Your task to perform on an android device: Set the phone to "Do not disturb". Image 0: 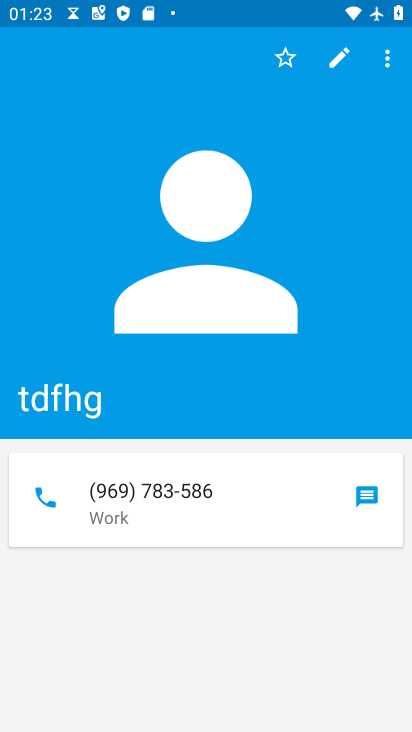
Step 0: press home button
Your task to perform on an android device: Set the phone to "Do not disturb". Image 1: 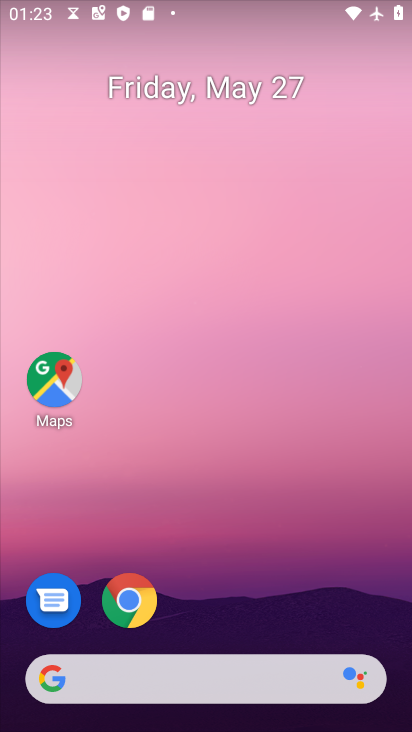
Step 1: drag from (218, 434) to (144, 21)
Your task to perform on an android device: Set the phone to "Do not disturb". Image 2: 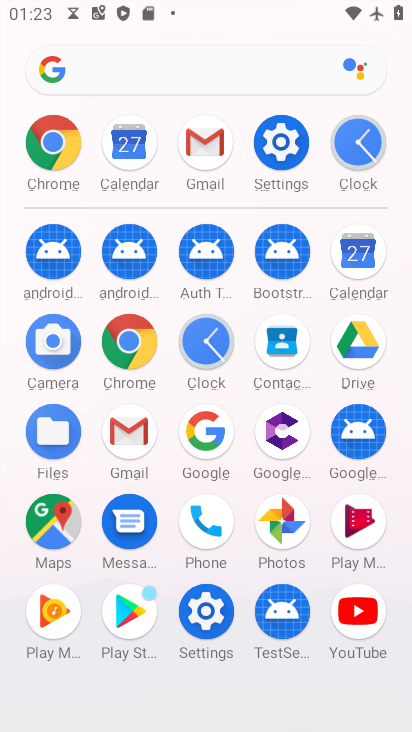
Step 2: click (287, 136)
Your task to perform on an android device: Set the phone to "Do not disturb". Image 3: 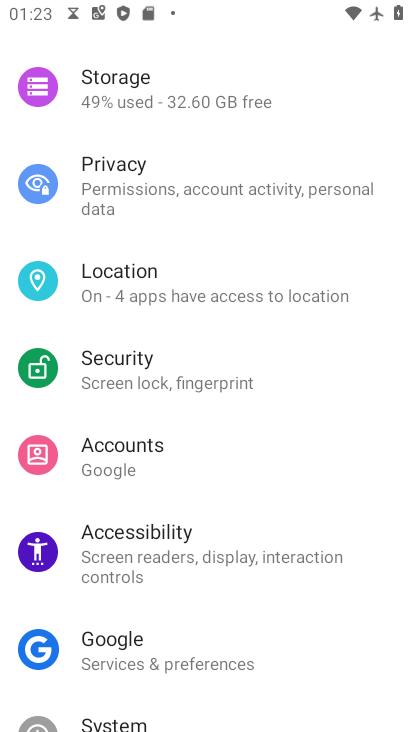
Step 3: drag from (191, 553) to (173, 338)
Your task to perform on an android device: Set the phone to "Do not disturb". Image 4: 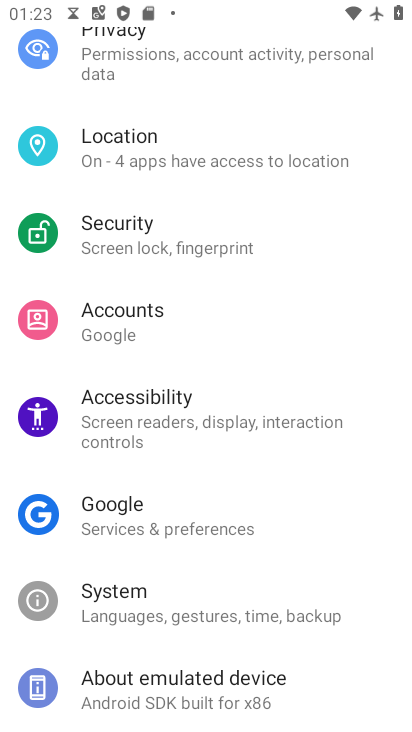
Step 4: drag from (208, 531) to (195, 258)
Your task to perform on an android device: Set the phone to "Do not disturb". Image 5: 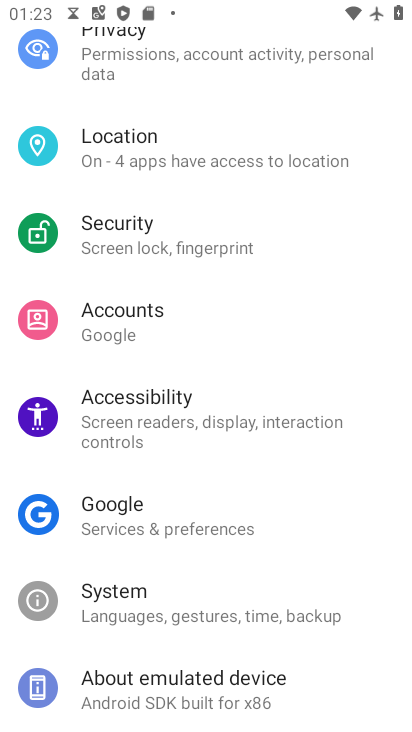
Step 5: drag from (283, 302) to (274, 81)
Your task to perform on an android device: Set the phone to "Do not disturb". Image 6: 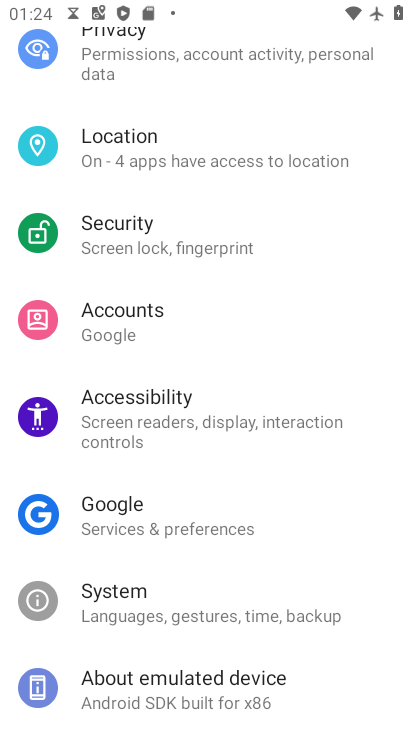
Step 6: drag from (259, 473) to (242, 129)
Your task to perform on an android device: Set the phone to "Do not disturb". Image 7: 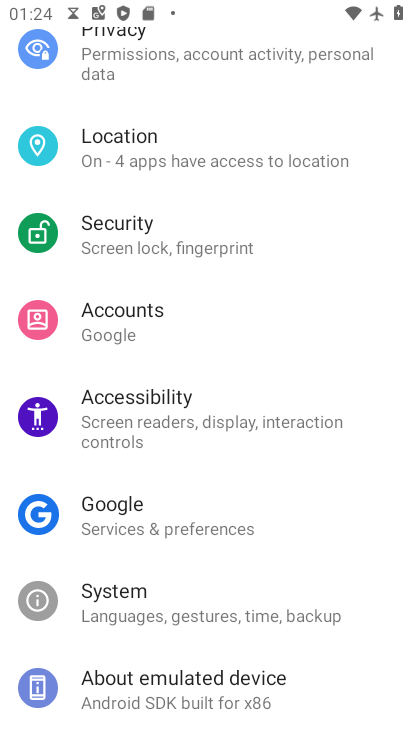
Step 7: drag from (240, 96) to (202, 691)
Your task to perform on an android device: Set the phone to "Do not disturb". Image 8: 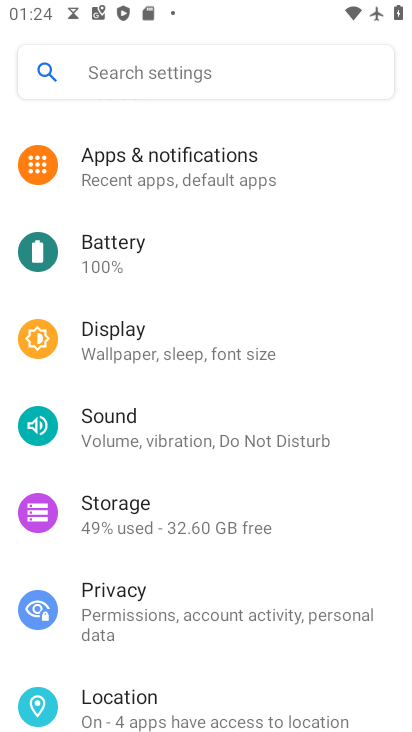
Step 8: click (223, 444)
Your task to perform on an android device: Set the phone to "Do not disturb". Image 9: 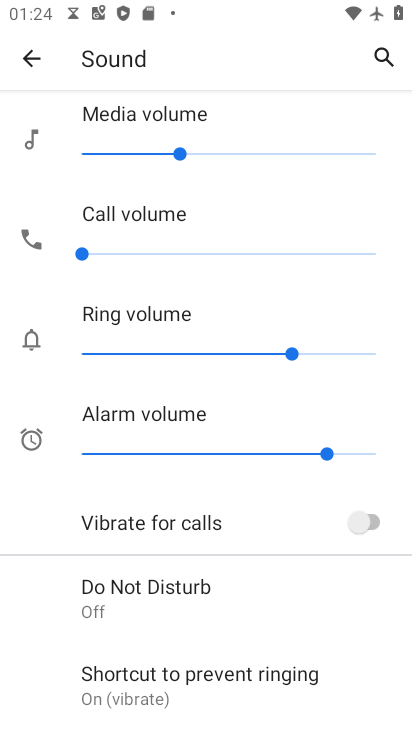
Step 9: click (187, 611)
Your task to perform on an android device: Set the phone to "Do not disturb". Image 10: 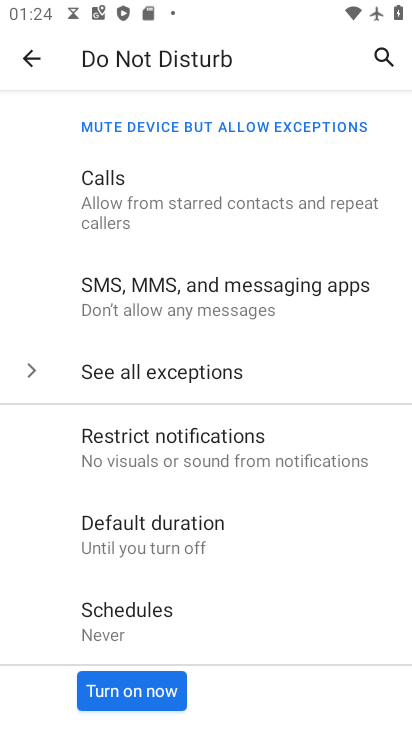
Step 10: click (128, 699)
Your task to perform on an android device: Set the phone to "Do not disturb". Image 11: 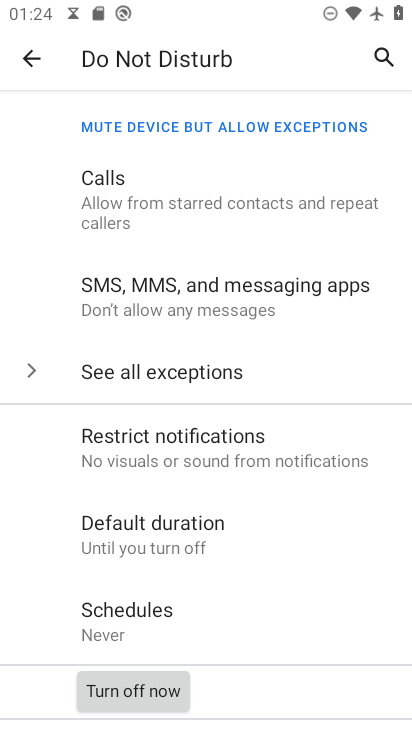
Step 11: task complete